Your task to perform on an android device: change your default location settings in chrome Image 0: 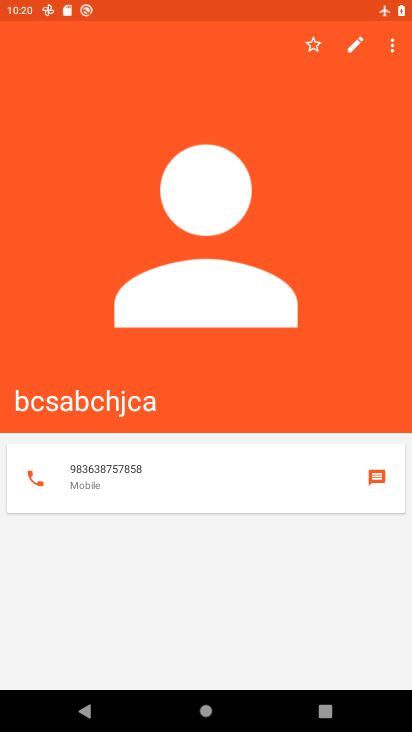
Step 0: press back button
Your task to perform on an android device: change your default location settings in chrome Image 1: 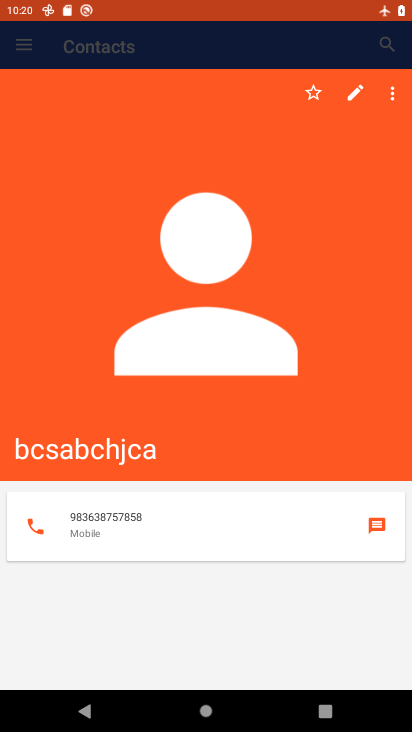
Step 1: press back button
Your task to perform on an android device: change your default location settings in chrome Image 2: 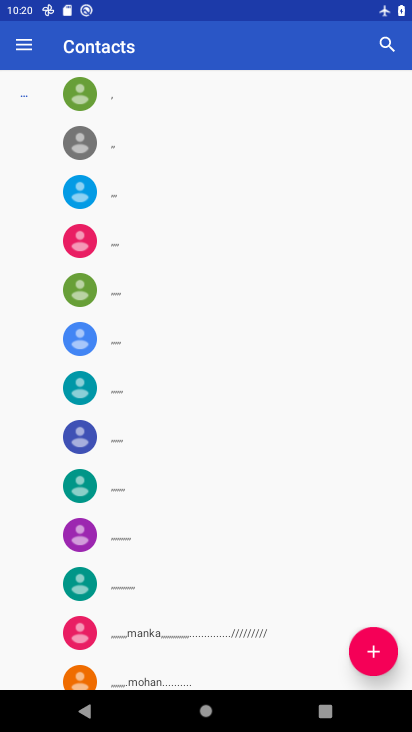
Step 2: press back button
Your task to perform on an android device: change your default location settings in chrome Image 3: 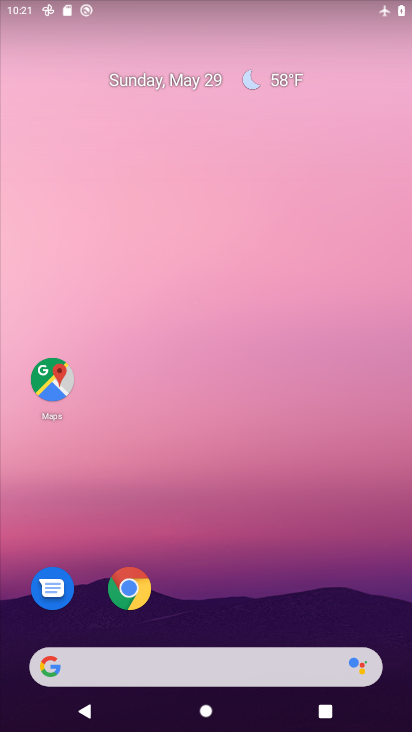
Step 3: drag from (280, 643) to (221, 126)
Your task to perform on an android device: change your default location settings in chrome Image 4: 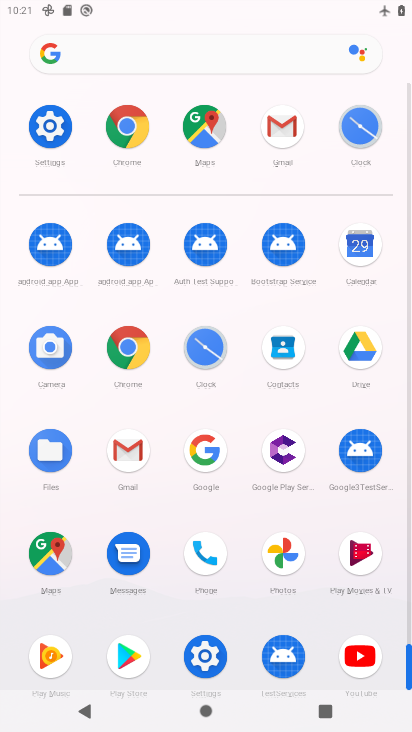
Step 4: click (118, 346)
Your task to perform on an android device: change your default location settings in chrome Image 5: 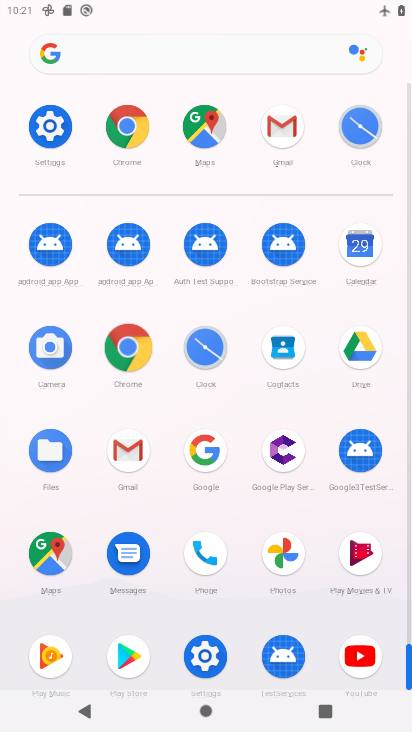
Step 5: click (124, 345)
Your task to perform on an android device: change your default location settings in chrome Image 6: 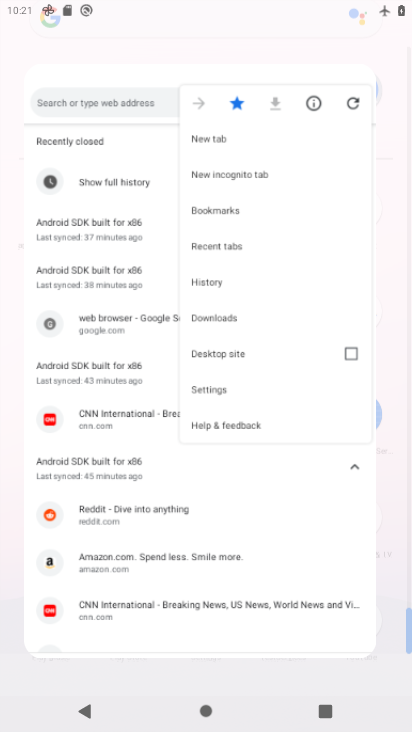
Step 6: click (127, 343)
Your task to perform on an android device: change your default location settings in chrome Image 7: 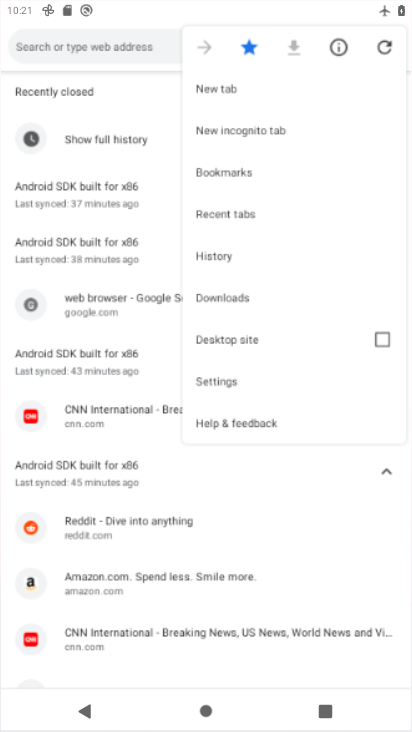
Step 7: click (127, 343)
Your task to perform on an android device: change your default location settings in chrome Image 8: 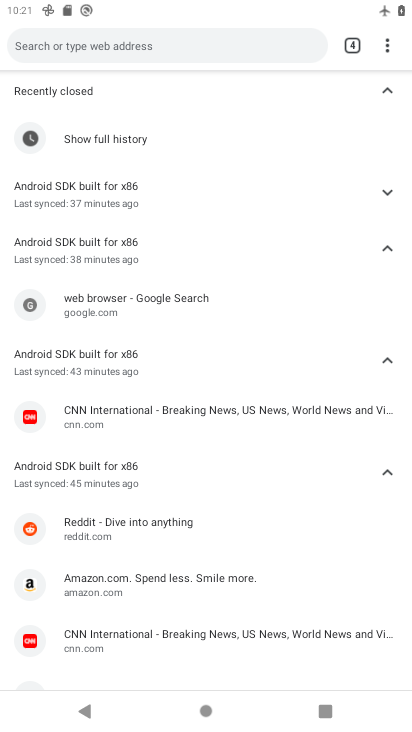
Step 8: drag from (388, 44) to (209, 384)
Your task to perform on an android device: change your default location settings in chrome Image 9: 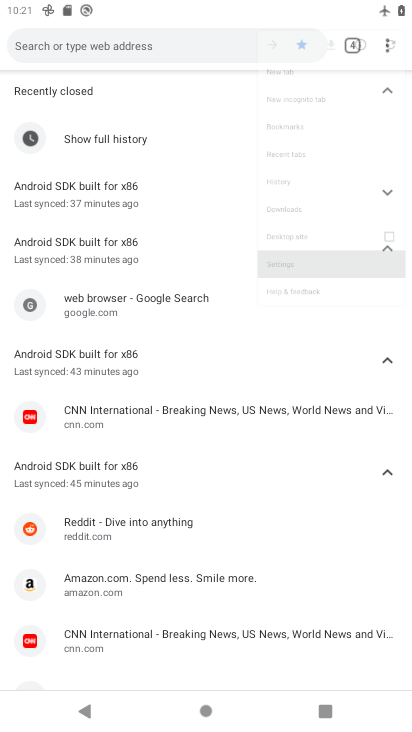
Step 9: click (209, 384)
Your task to perform on an android device: change your default location settings in chrome Image 10: 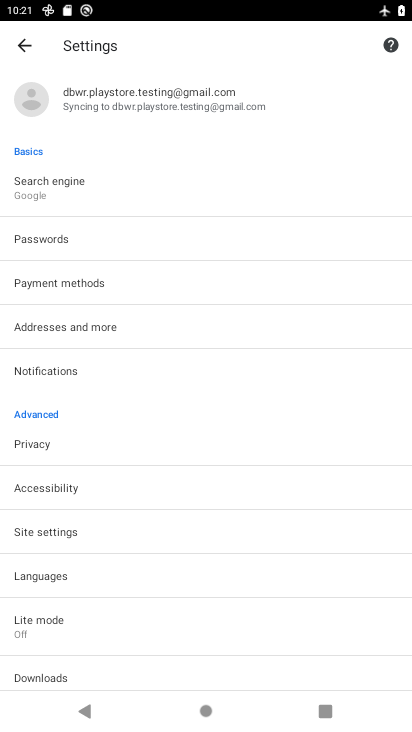
Step 10: click (48, 186)
Your task to perform on an android device: change your default location settings in chrome Image 11: 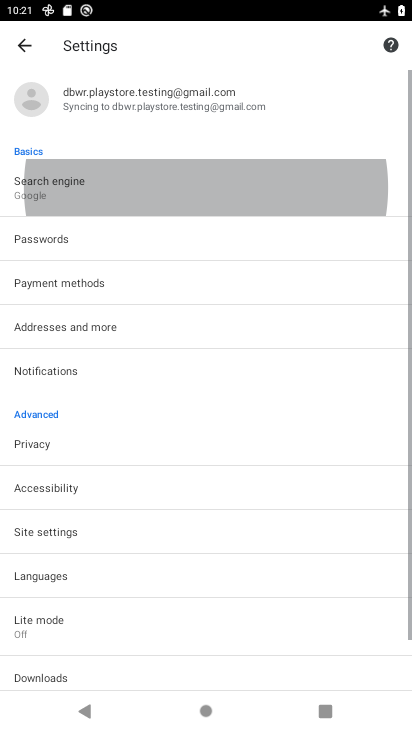
Step 11: click (48, 186)
Your task to perform on an android device: change your default location settings in chrome Image 12: 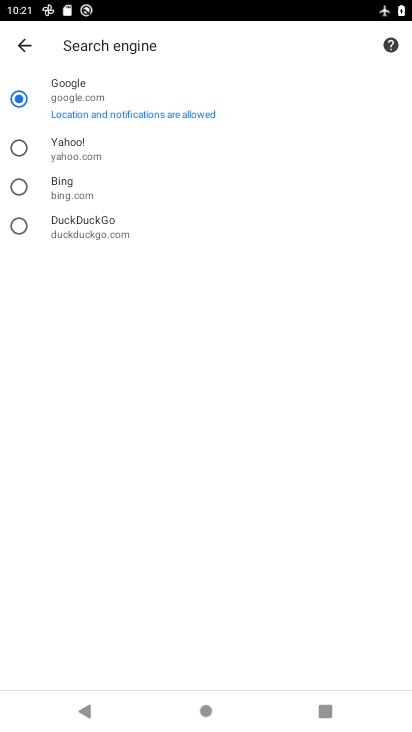
Step 12: click (6, 143)
Your task to perform on an android device: change your default location settings in chrome Image 13: 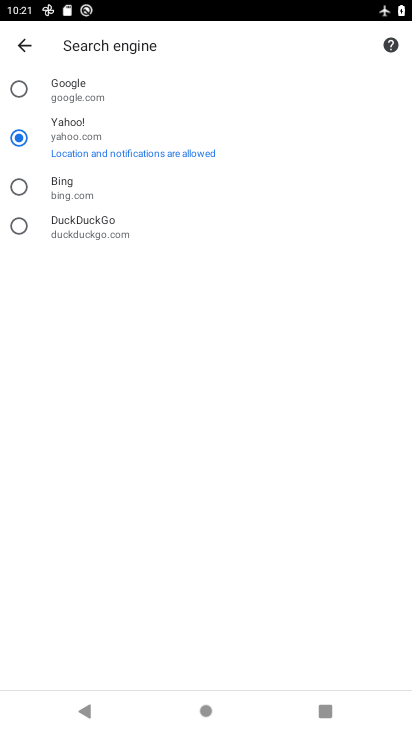
Step 13: task complete